Your task to perform on an android device: set the timer Image 0: 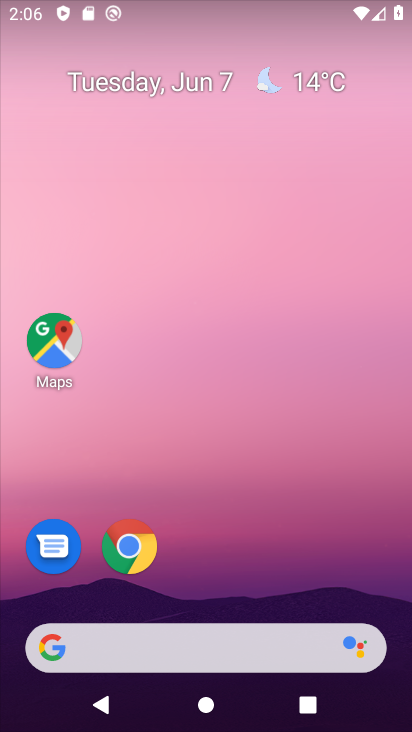
Step 0: drag from (157, 588) to (247, 79)
Your task to perform on an android device: set the timer Image 1: 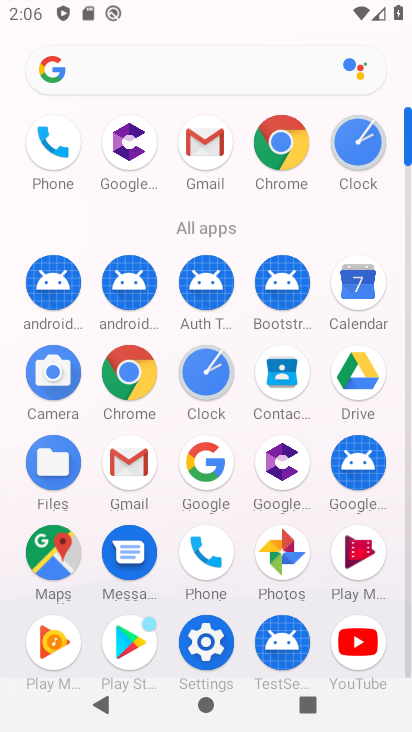
Step 1: click (361, 155)
Your task to perform on an android device: set the timer Image 2: 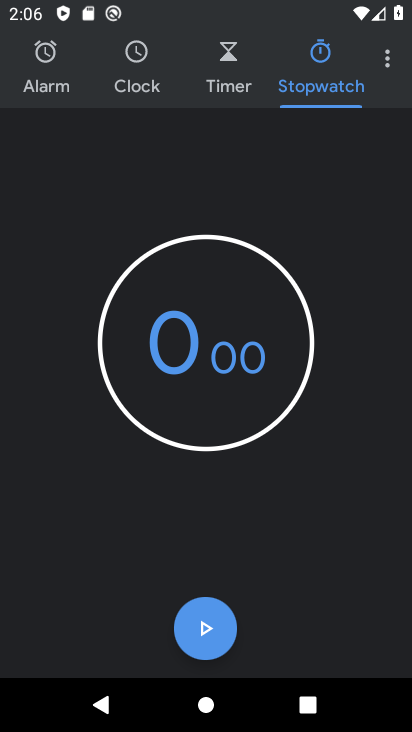
Step 2: click (227, 62)
Your task to perform on an android device: set the timer Image 3: 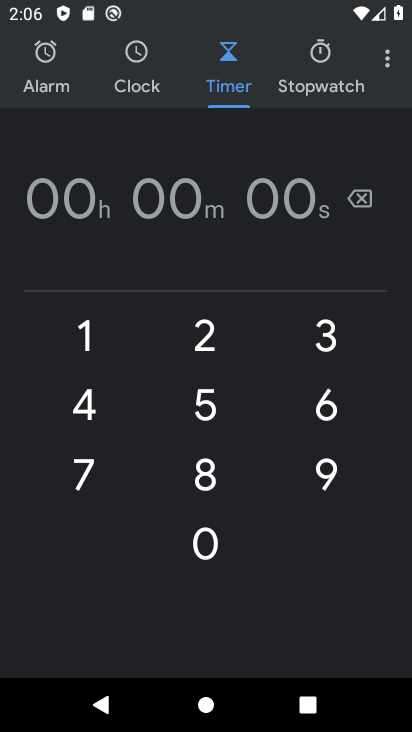
Step 3: click (321, 419)
Your task to perform on an android device: set the timer Image 4: 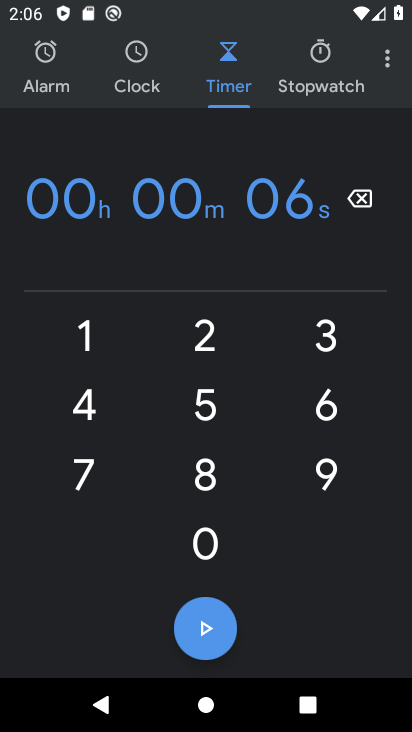
Step 4: click (195, 641)
Your task to perform on an android device: set the timer Image 5: 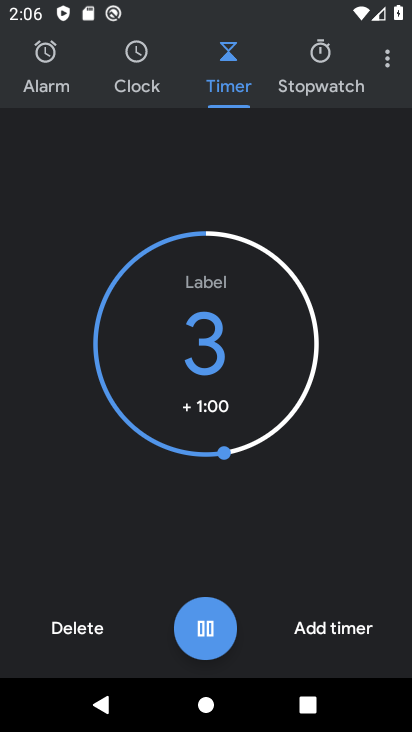
Step 5: task complete